Your task to perform on an android device: Search for usb-a to usb-b on target, select the first entry, add it to the cart, then select checkout. Image 0: 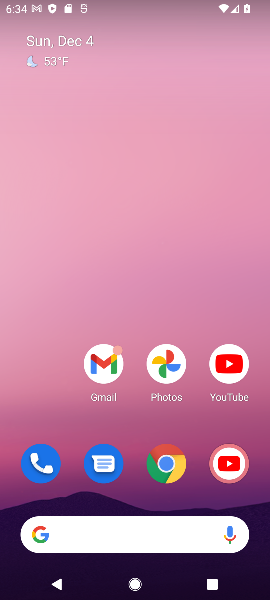
Step 0: click (126, 536)
Your task to perform on an android device: Search for usb-a to usb-b on target, select the first entry, add it to the cart, then select checkout. Image 1: 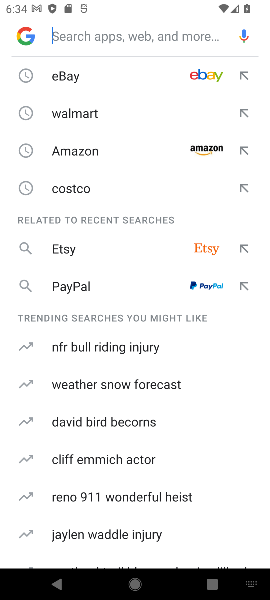
Step 1: type "target"
Your task to perform on an android device: Search for usb-a to usb-b on target, select the first entry, add it to the cart, then select checkout. Image 2: 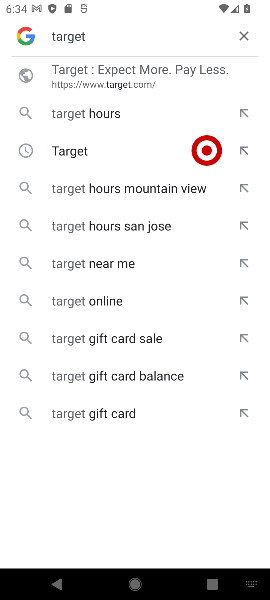
Step 2: click (223, 74)
Your task to perform on an android device: Search for usb-a to usb-b on target, select the first entry, add it to the cart, then select checkout. Image 3: 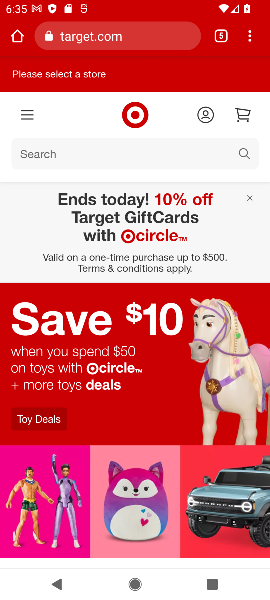
Step 3: click (146, 148)
Your task to perform on an android device: Search for usb-a to usb-b on target, select the first entry, add it to the cart, then select checkout. Image 4: 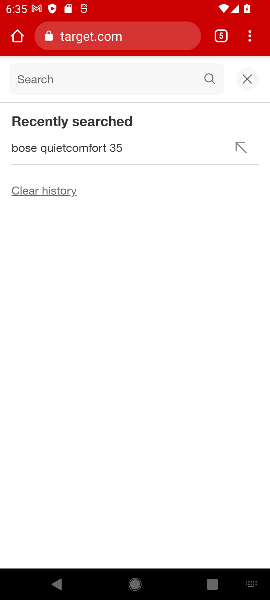
Step 4: type "usb-b"
Your task to perform on an android device: Search for usb-a to usb-b on target, select the first entry, add it to the cart, then select checkout. Image 5: 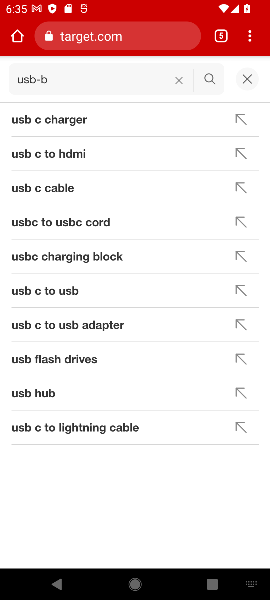
Step 5: click (126, 123)
Your task to perform on an android device: Search for usb-a to usb-b on target, select the first entry, add it to the cart, then select checkout. Image 6: 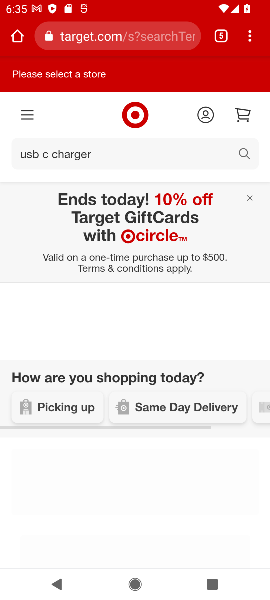
Step 6: task complete